Your task to perform on an android device: Open network settings Image 0: 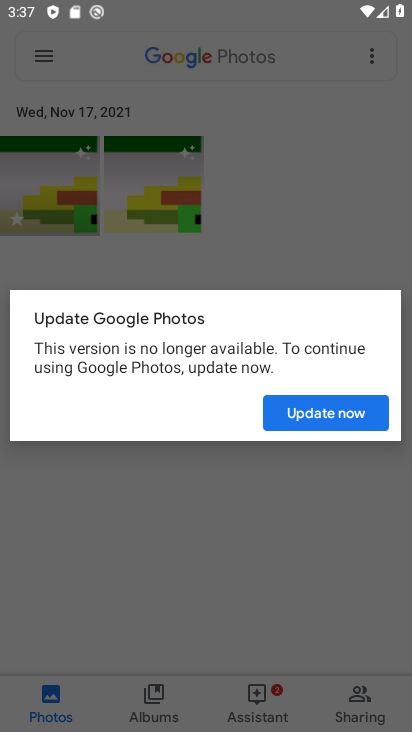
Step 0: press home button
Your task to perform on an android device: Open network settings Image 1: 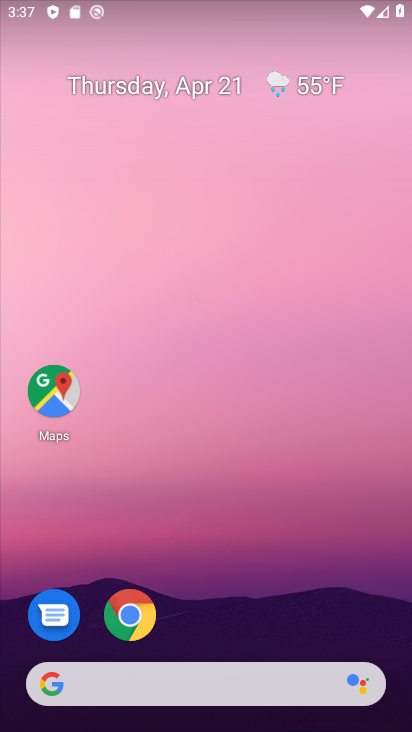
Step 1: drag from (261, 514) to (266, 75)
Your task to perform on an android device: Open network settings Image 2: 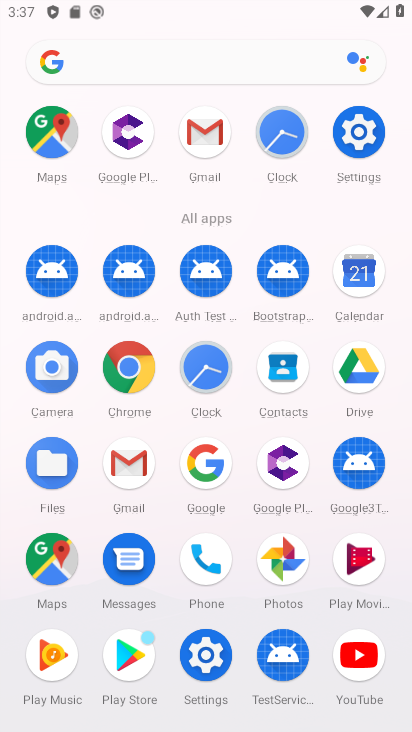
Step 2: click (354, 137)
Your task to perform on an android device: Open network settings Image 3: 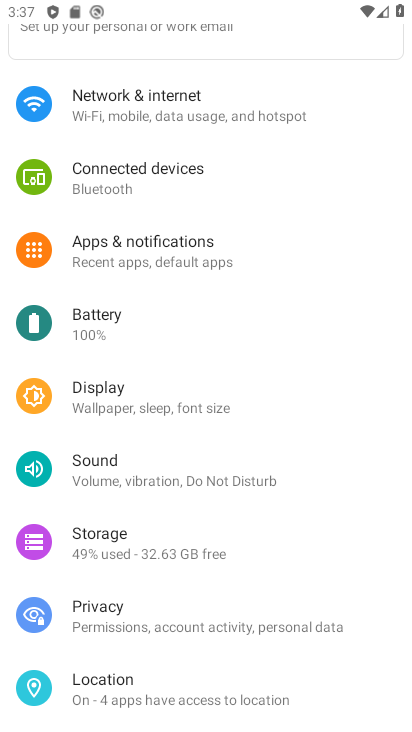
Step 3: click (146, 100)
Your task to perform on an android device: Open network settings Image 4: 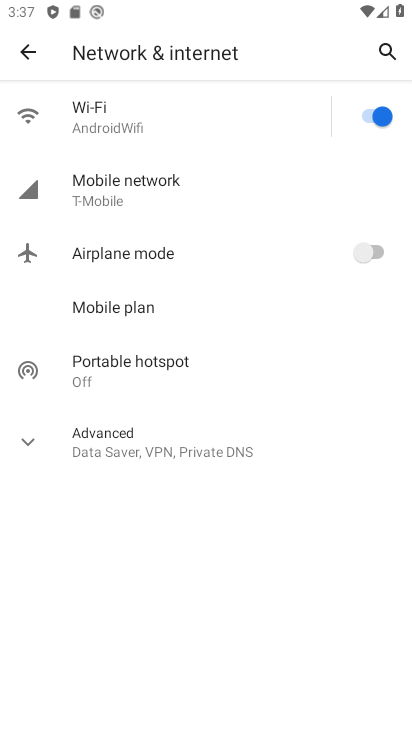
Step 4: drag from (143, 103) to (161, 62)
Your task to perform on an android device: Open network settings Image 5: 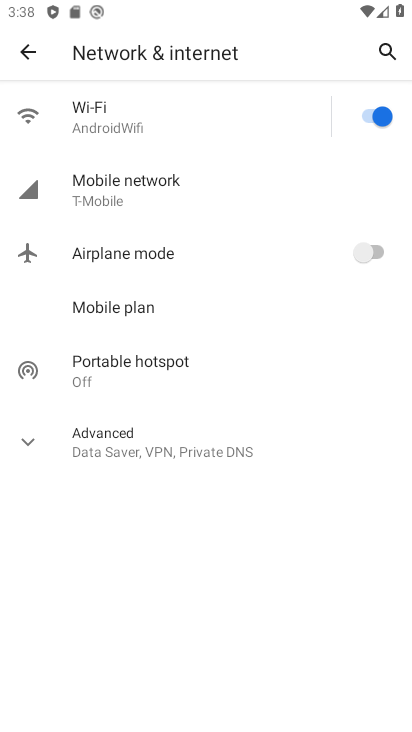
Step 5: click (173, 451)
Your task to perform on an android device: Open network settings Image 6: 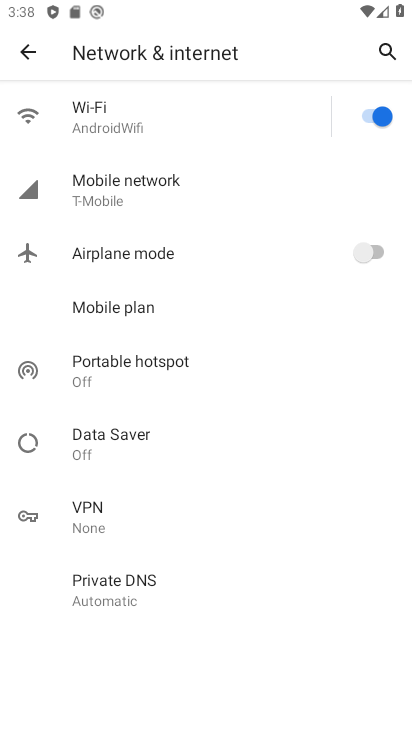
Step 6: task complete